Your task to perform on an android device: Is it going to rain today? Image 0: 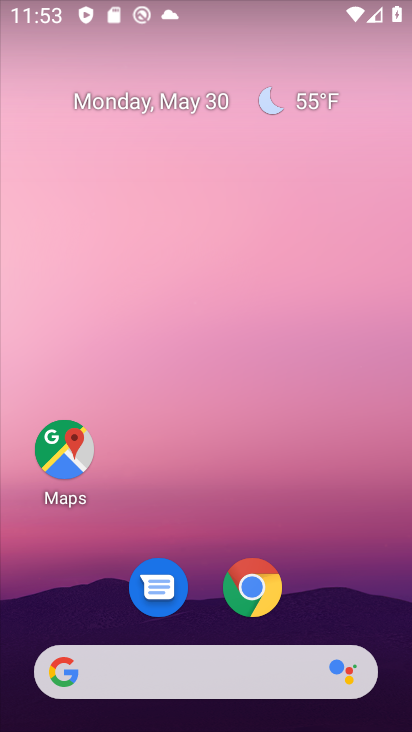
Step 0: click (250, 577)
Your task to perform on an android device: Is it going to rain today? Image 1: 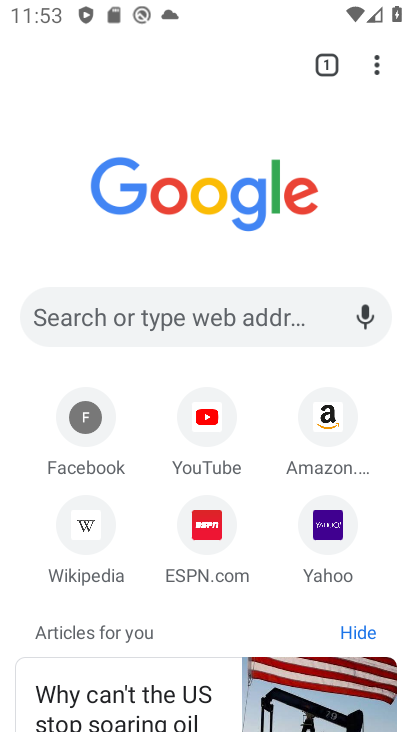
Step 1: click (207, 309)
Your task to perform on an android device: Is it going to rain today? Image 2: 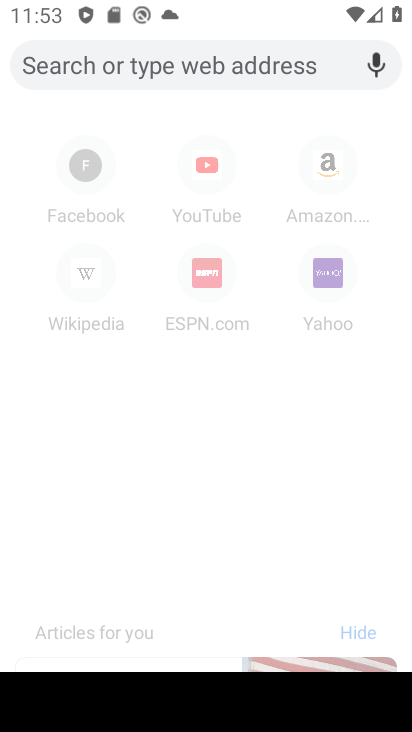
Step 2: type "is it going to rain today?"
Your task to perform on an android device: Is it going to rain today? Image 3: 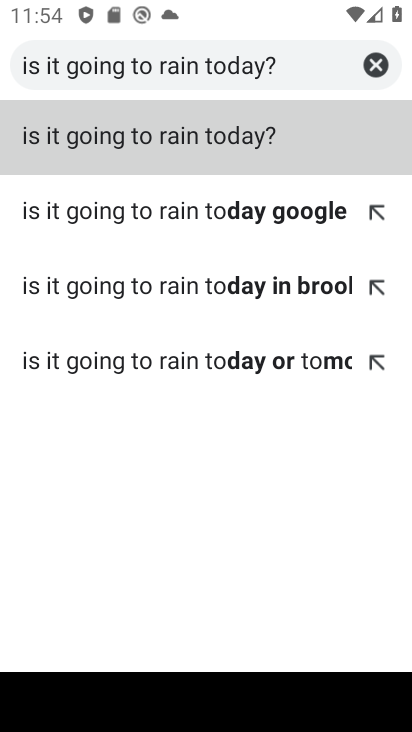
Step 3: click (167, 145)
Your task to perform on an android device: Is it going to rain today? Image 4: 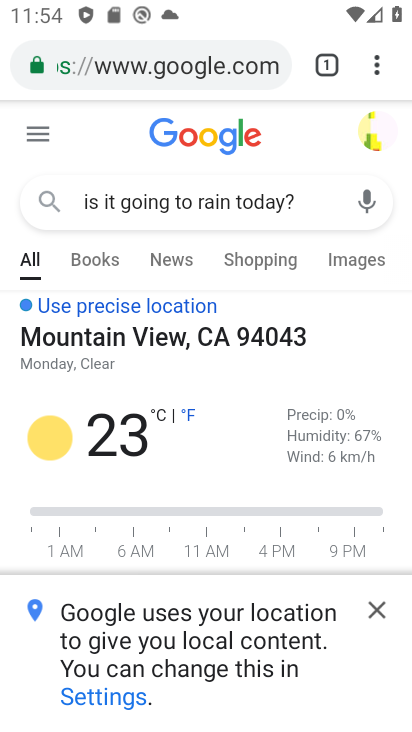
Step 4: task complete